Your task to perform on an android device: turn on improve location accuracy Image 0: 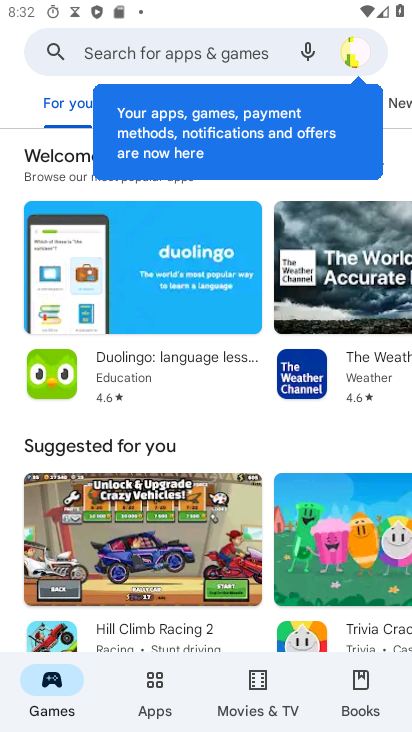
Step 0: press home button
Your task to perform on an android device: turn on improve location accuracy Image 1: 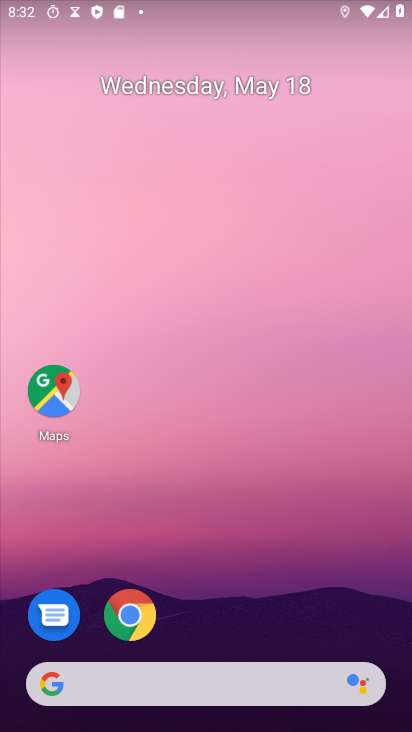
Step 1: drag from (255, 600) to (212, 129)
Your task to perform on an android device: turn on improve location accuracy Image 2: 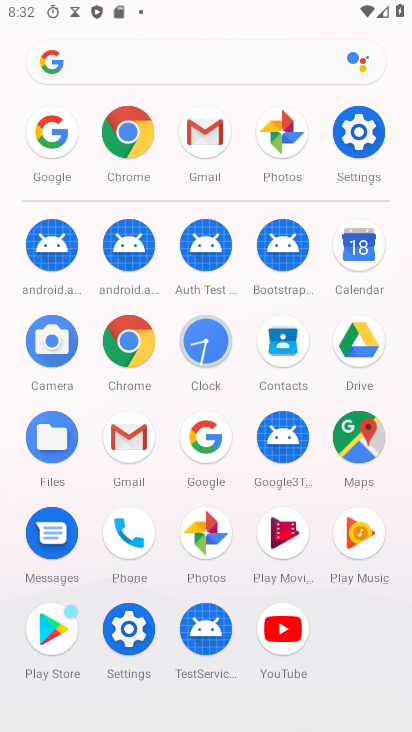
Step 2: click (136, 623)
Your task to perform on an android device: turn on improve location accuracy Image 3: 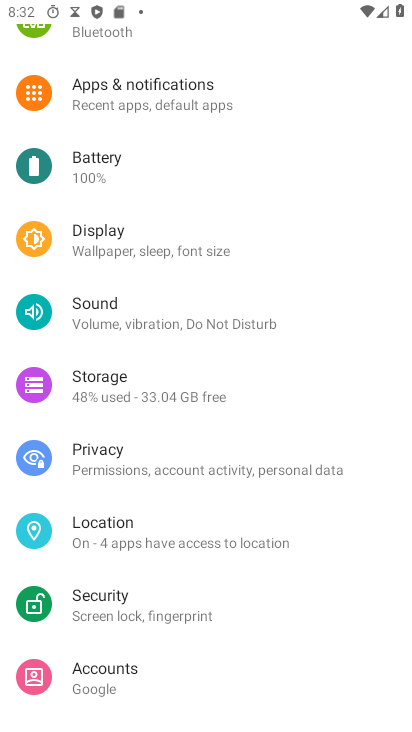
Step 3: click (124, 529)
Your task to perform on an android device: turn on improve location accuracy Image 4: 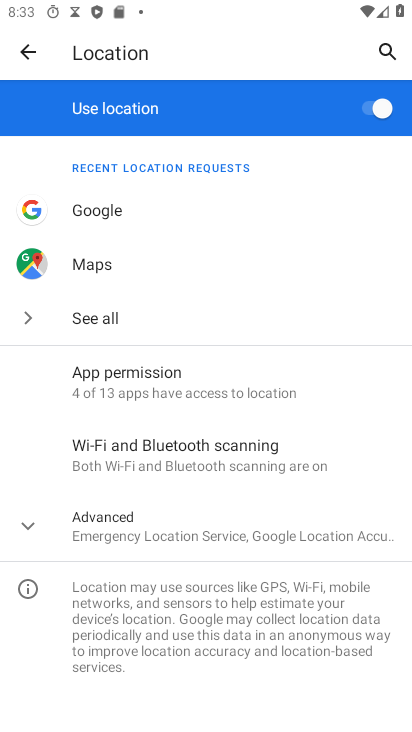
Step 4: click (173, 530)
Your task to perform on an android device: turn on improve location accuracy Image 5: 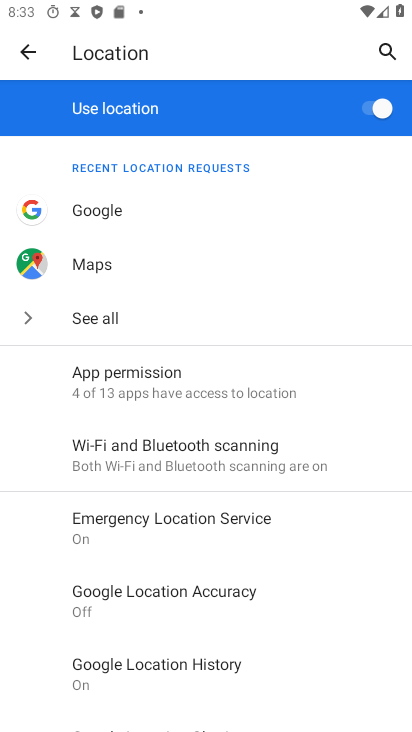
Step 5: click (207, 588)
Your task to perform on an android device: turn on improve location accuracy Image 6: 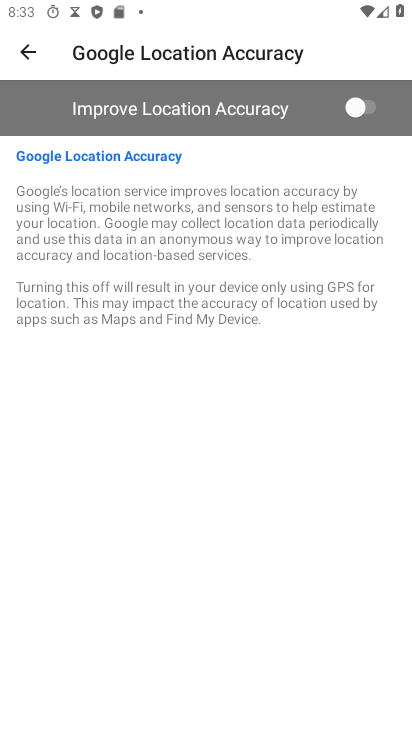
Step 6: click (354, 95)
Your task to perform on an android device: turn on improve location accuracy Image 7: 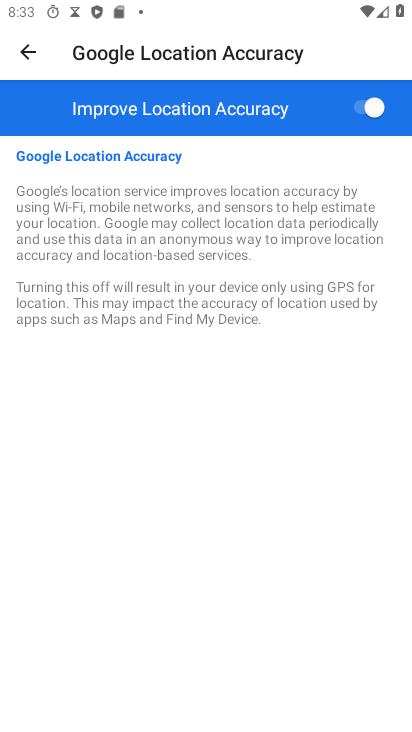
Step 7: task complete